Your task to perform on an android device: turn off notifications in google photos Image 0: 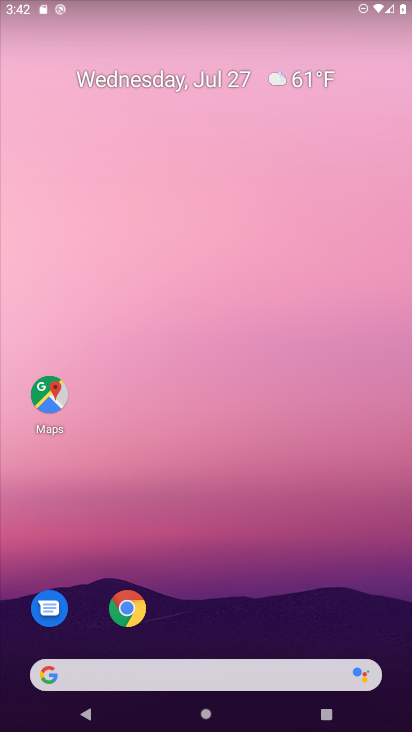
Step 0: drag from (226, 714) to (224, 212)
Your task to perform on an android device: turn off notifications in google photos Image 1: 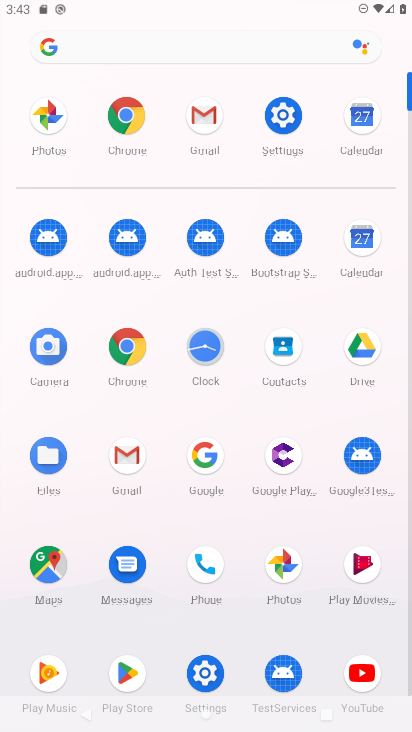
Step 1: click (286, 567)
Your task to perform on an android device: turn off notifications in google photos Image 2: 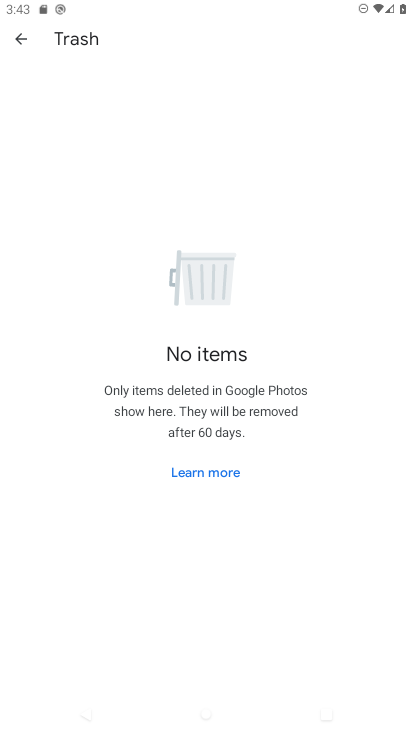
Step 2: click (25, 34)
Your task to perform on an android device: turn off notifications in google photos Image 3: 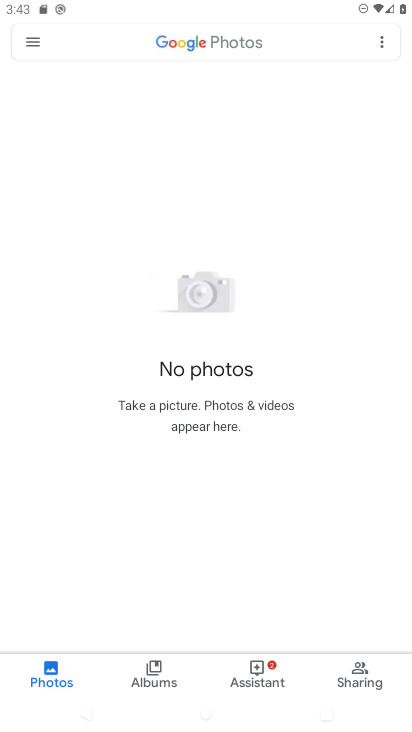
Step 3: click (34, 36)
Your task to perform on an android device: turn off notifications in google photos Image 4: 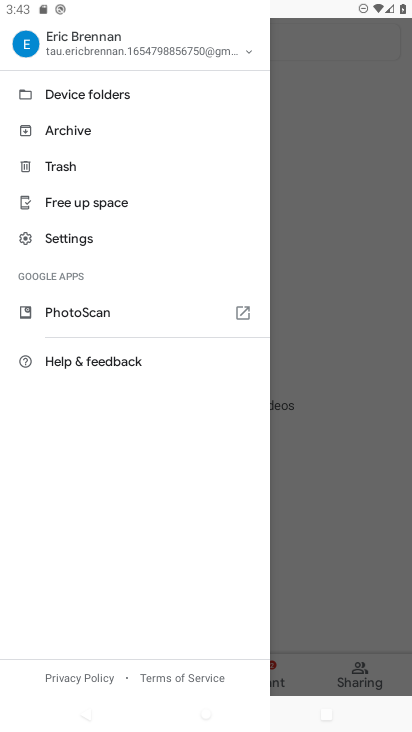
Step 4: click (70, 239)
Your task to perform on an android device: turn off notifications in google photos Image 5: 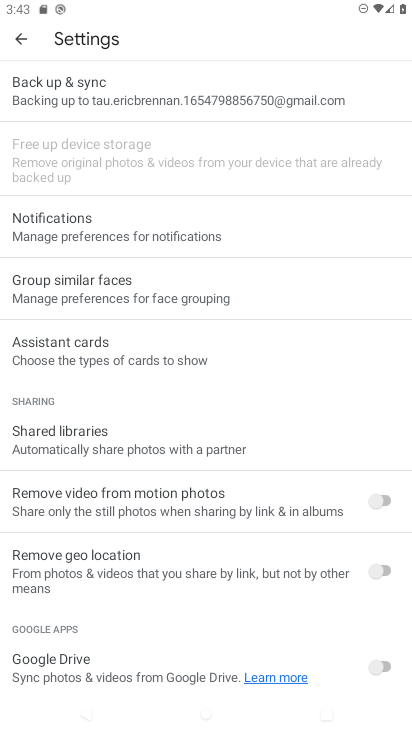
Step 5: click (64, 228)
Your task to perform on an android device: turn off notifications in google photos Image 6: 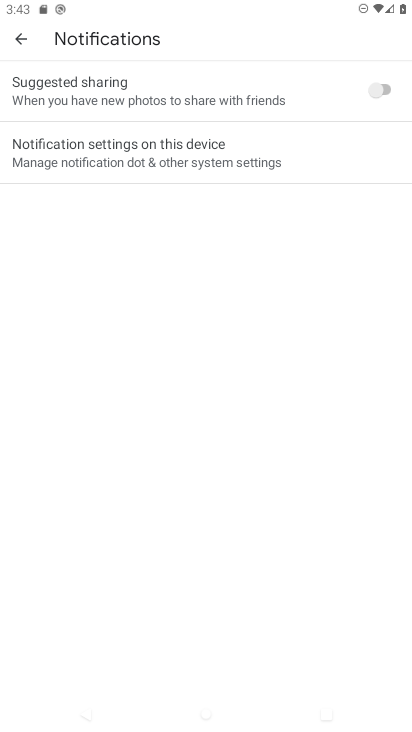
Step 6: click (116, 148)
Your task to perform on an android device: turn off notifications in google photos Image 7: 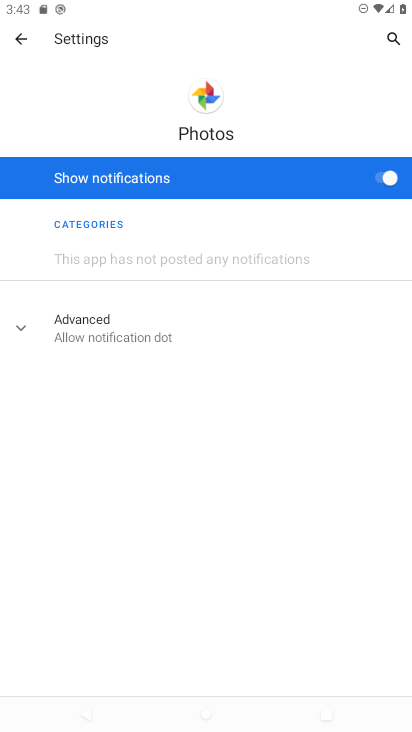
Step 7: click (386, 174)
Your task to perform on an android device: turn off notifications in google photos Image 8: 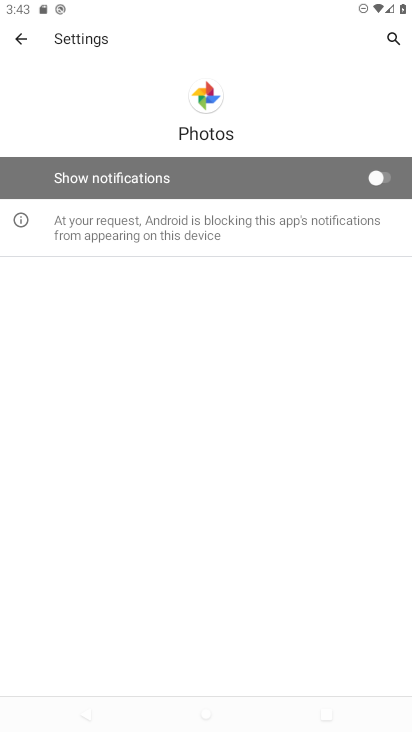
Step 8: task complete